Your task to perform on an android device: turn off location history Image 0: 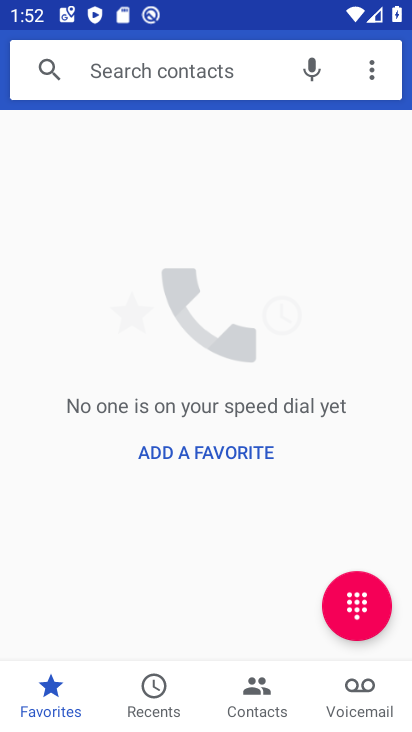
Step 0: press home button
Your task to perform on an android device: turn off location history Image 1: 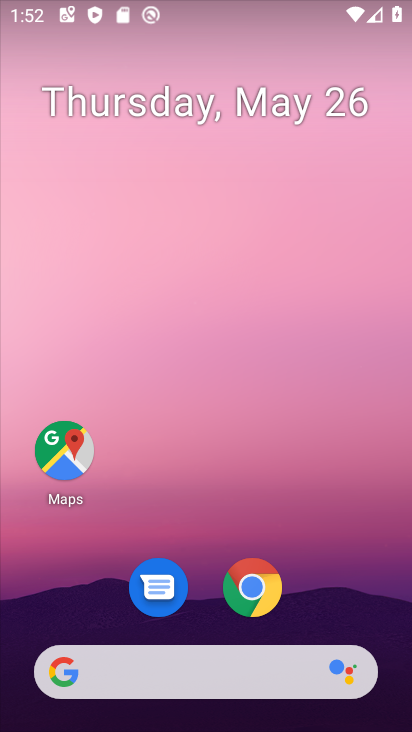
Step 1: drag from (333, 543) to (305, 71)
Your task to perform on an android device: turn off location history Image 2: 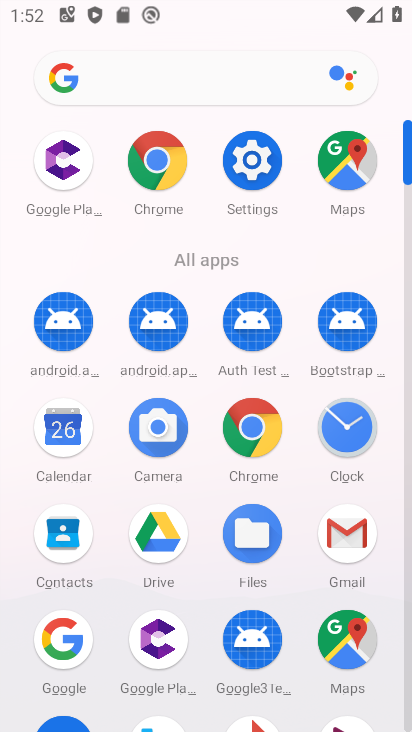
Step 2: click (260, 167)
Your task to perform on an android device: turn off location history Image 3: 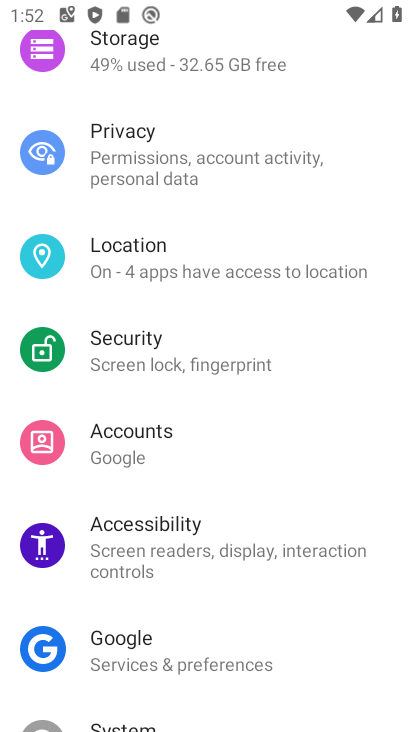
Step 3: drag from (216, 596) to (242, 186)
Your task to perform on an android device: turn off location history Image 4: 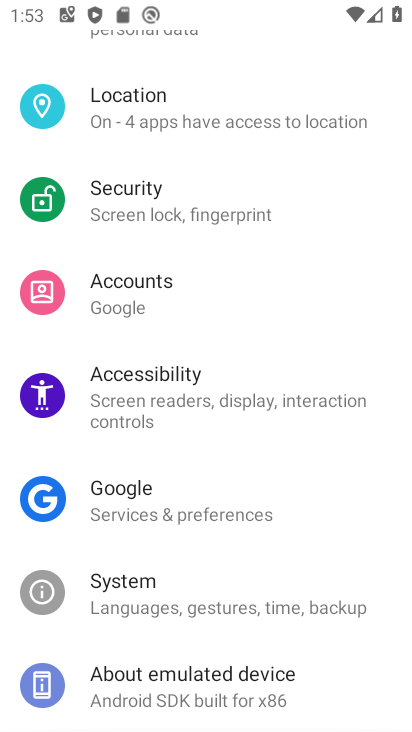
Step 4: click (163, 105)
Your task to perform on an android device: turn off location history Image 5: 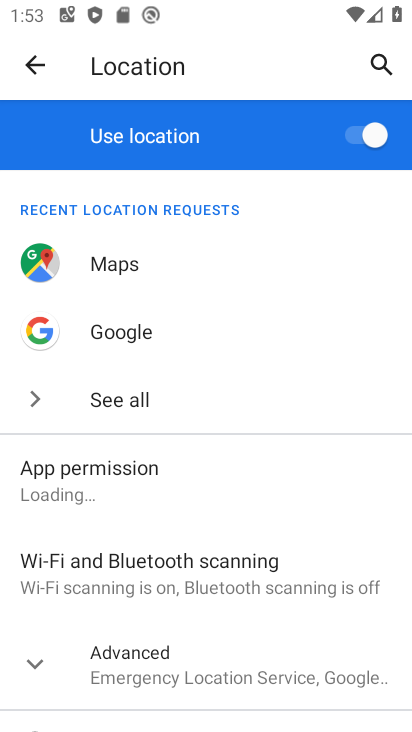
Step 5: click (151, 676)
Your task to perform on an android device: turn off location history Image 6: 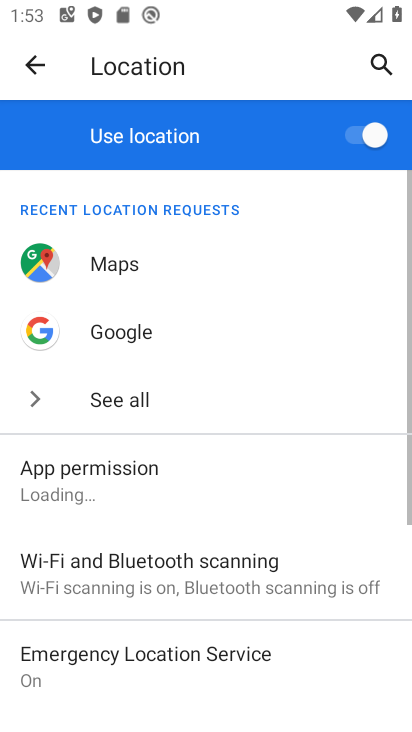
Step 6: drag from (234, 662) to (288, 162)
Your task to perform on an android device: turn off location history Image 7: 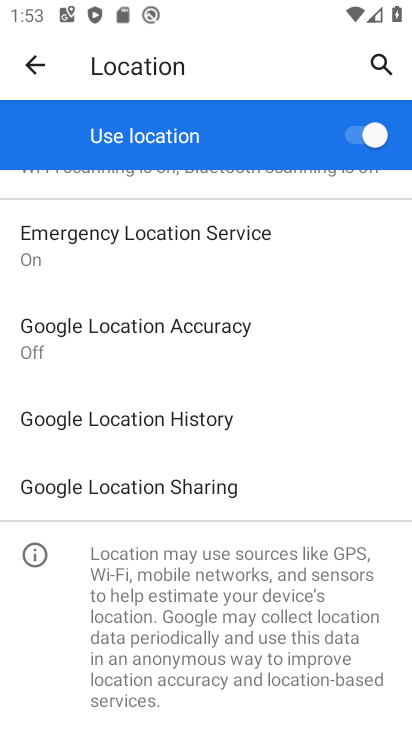
Step 7: click (170, 434)
Your task to perform on an android device: turn off location history Image 8: 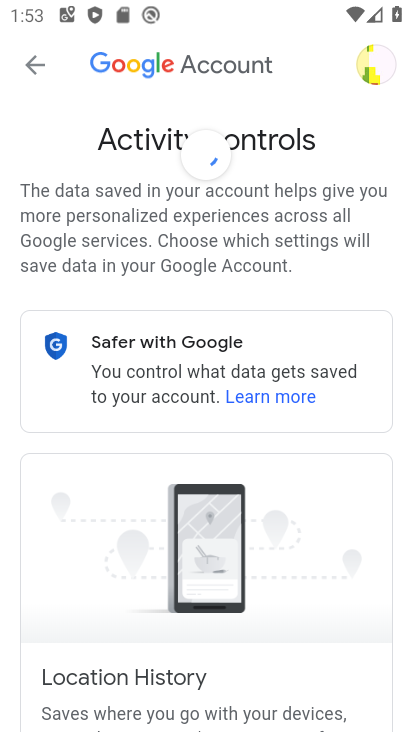
Step 8: drag from (239, 587) to (281, 173)
Your task to perform on an android device: turn off location history Image 9: 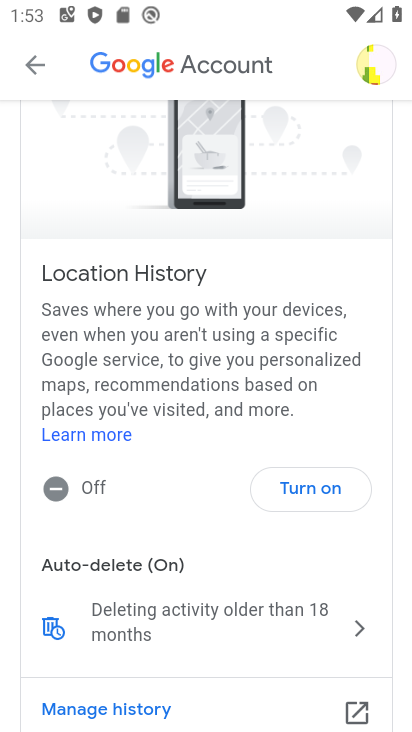
Step 9: click (326, 503)
Your task to perform on an android device: turn off location history Image 10: 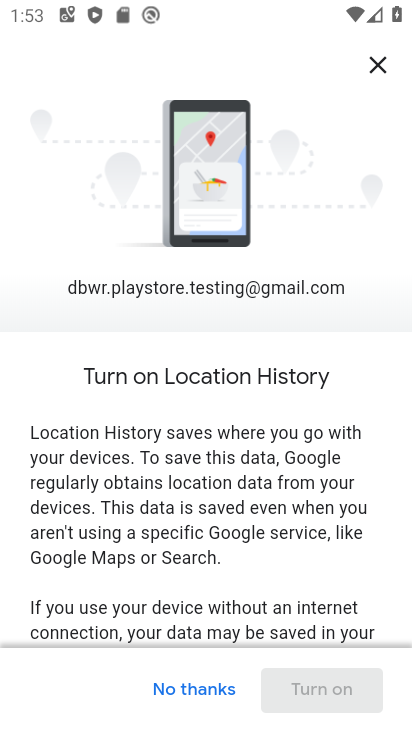
Step 10: drag from (270, 547) to (257, 78)
Your task to perform on an android device: turn off location history Image 11: 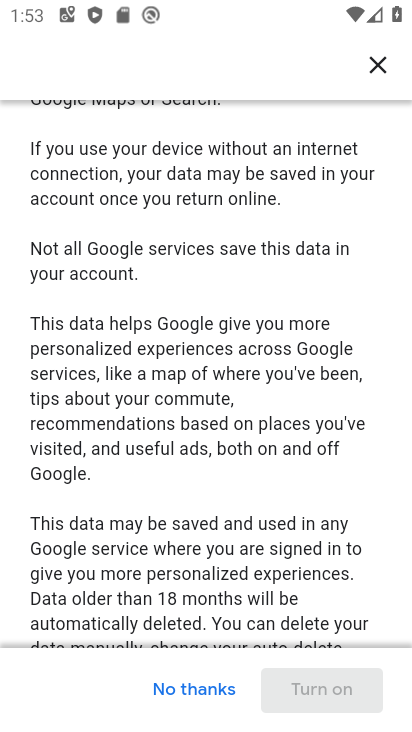
Step 11: drag from (214, 538) to (252, 95)
Your task to perform on an android device: turn off location history Image 12: 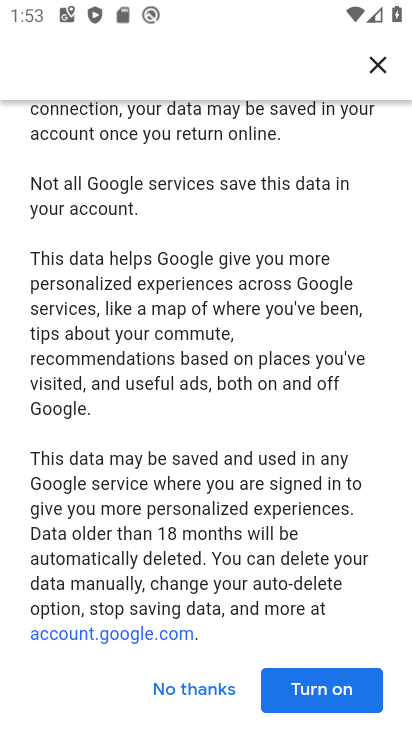
Step 12: click (305, 676)
Your task to perform on an android device: turn off location history Image 13: 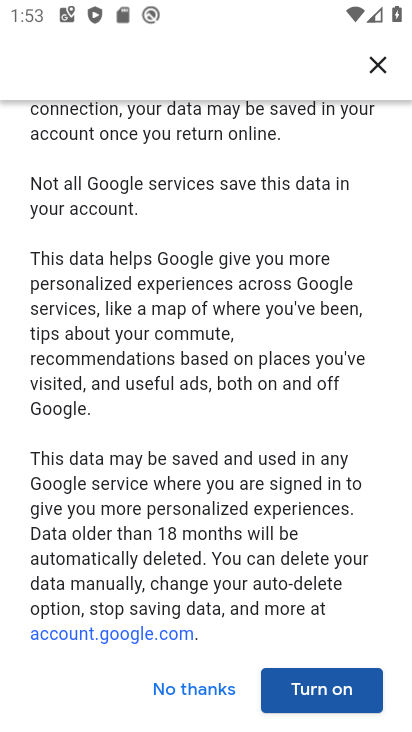
Step 13: click (314, 687)
Your task to perform on an android device: turn off location history Image 14: 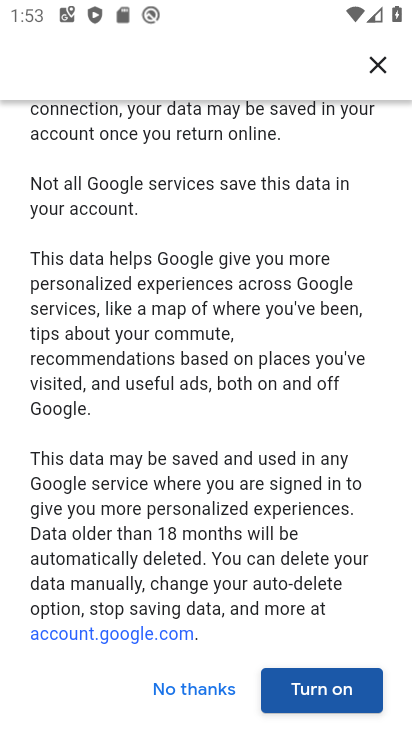
Step 14: click (316, 680)
Your task to perform on an android device: turn off location history Image 15: 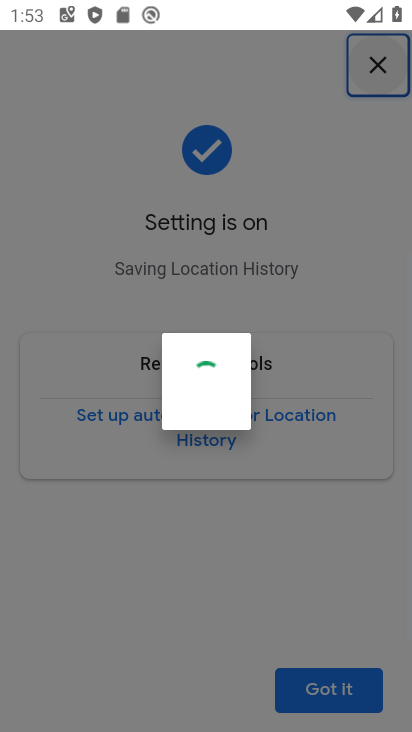
Step 15: click (344, 701)
Your task to perform on an android device: turn off location history Image 16: 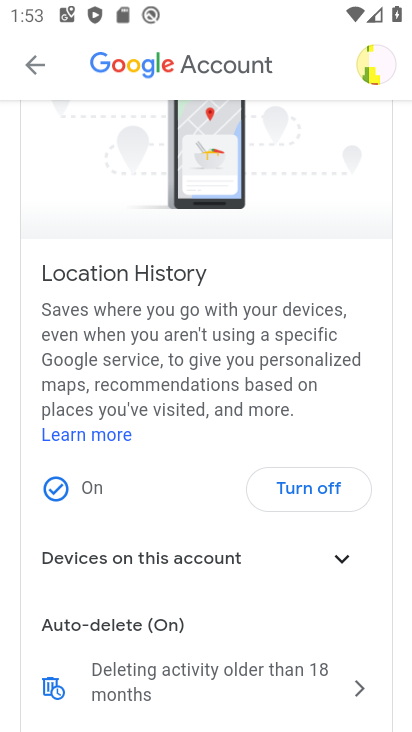
Step 16: task complete